Your task to perform on an android device: check data usage Image 0: 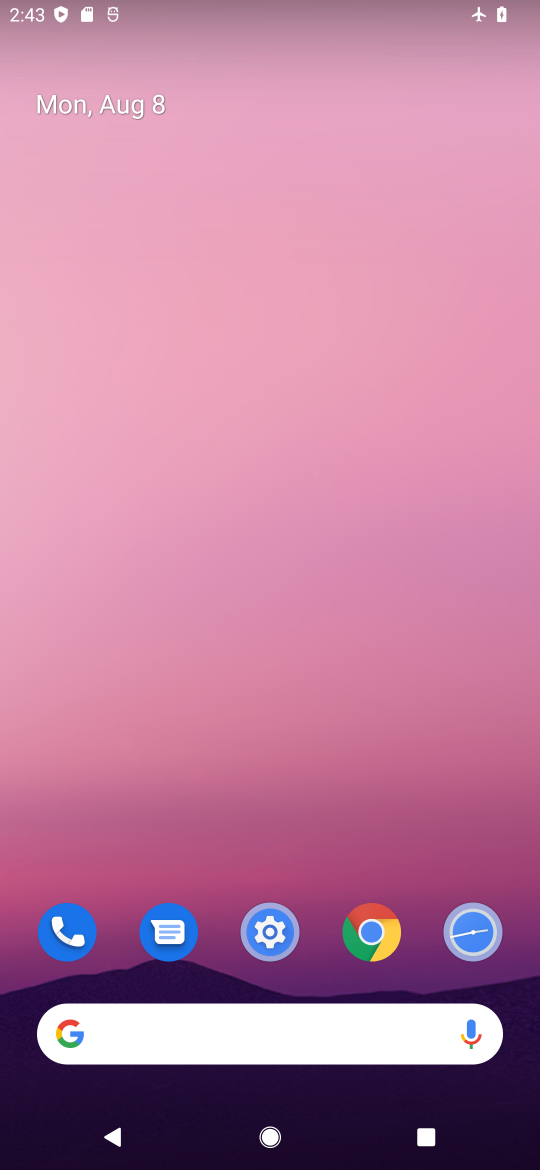
Step 0: drag from (418, 793) to (353, 82)
Your task to perform on an android device: check data usage Image 1: 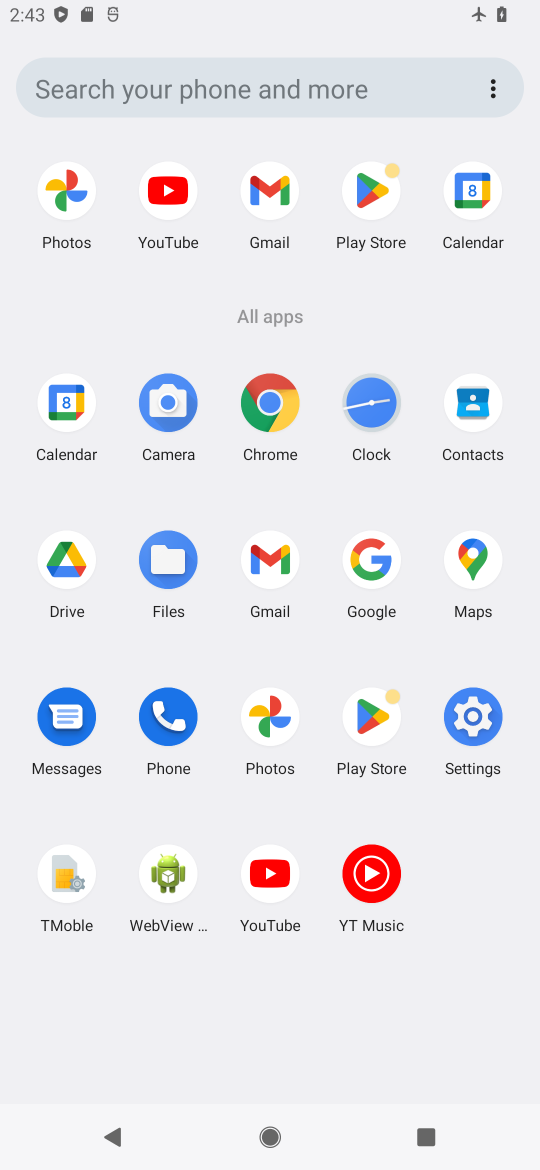
Step 1: click (485, 718)
Your task to perform on an android device: check data usage Image 2: 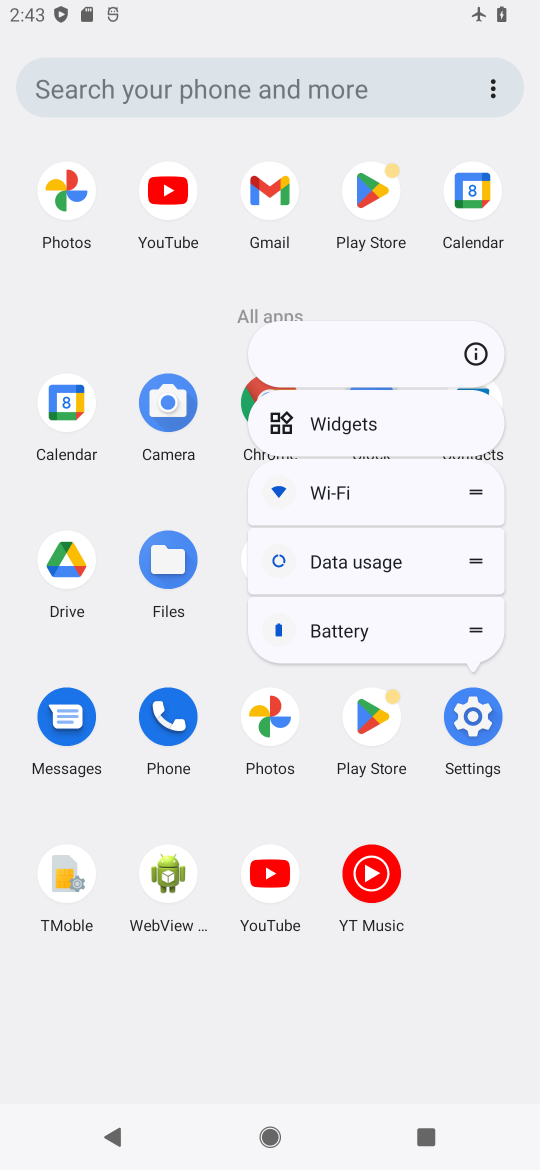
Step 2: click (485, 718)
Your task to perform on an android device: check data usage Image 3: 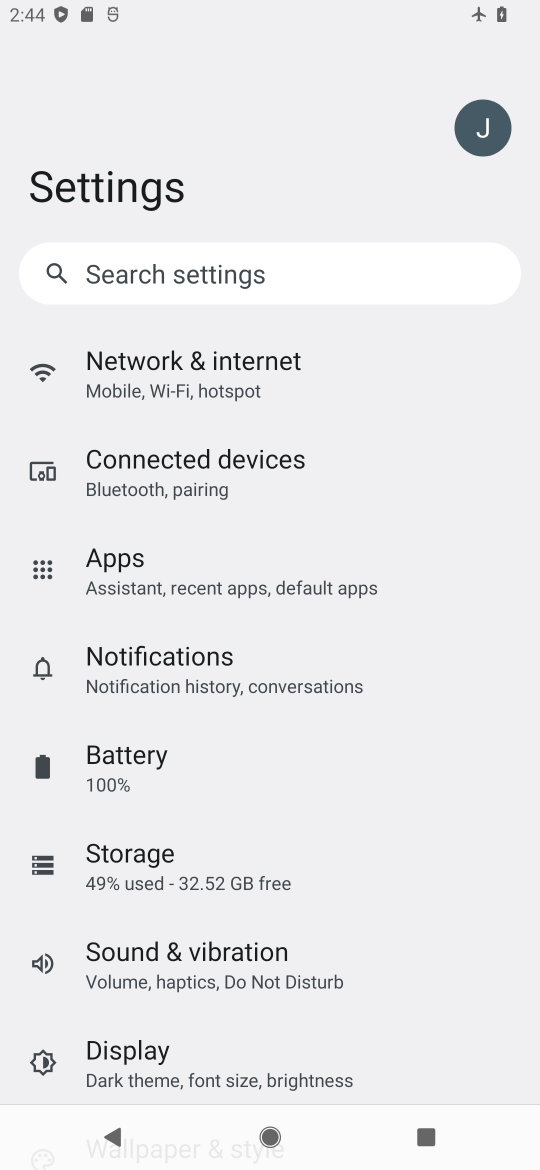
Step 3: click (207, 392)
Your task to perform on an android device: check data usage Image 4: 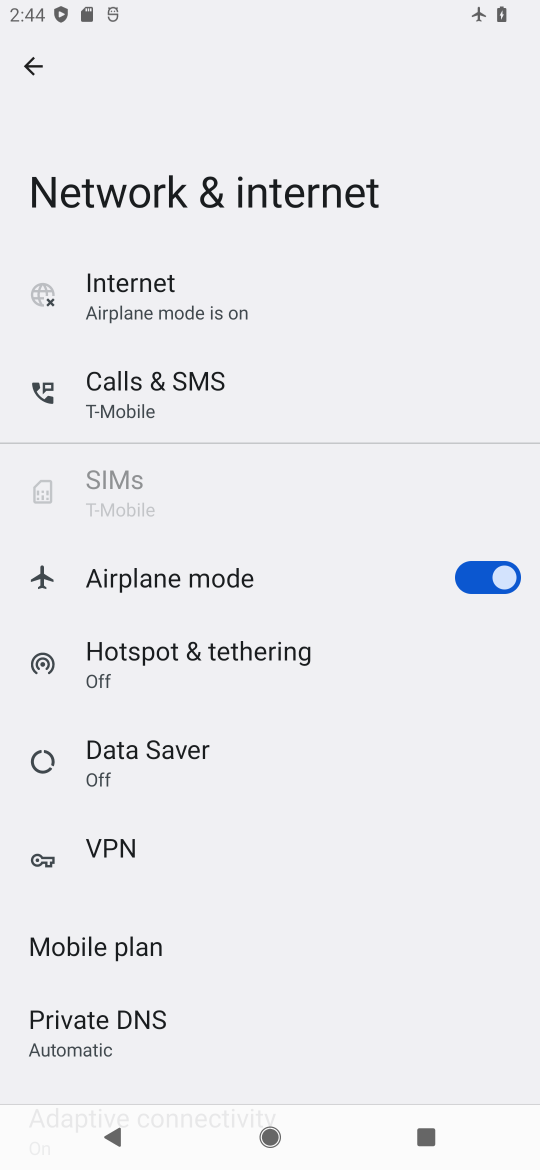
Step 4: click (198, 288)
Your task to perform on an android device: check data usage Image 5: 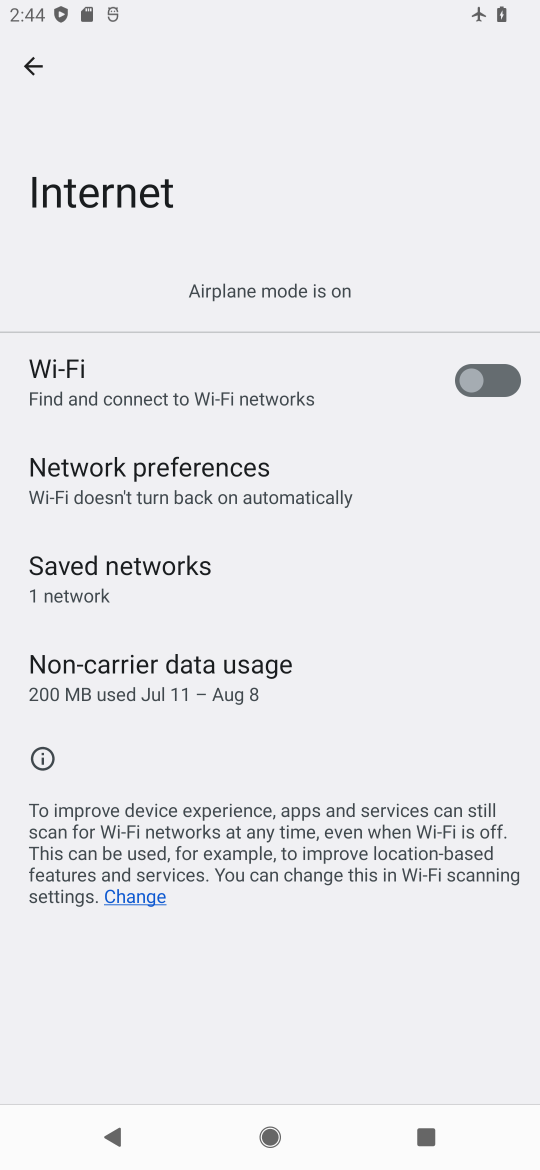
Step 5: click (236, 673)
Your task to perform on an android device: check data usage Image 6: 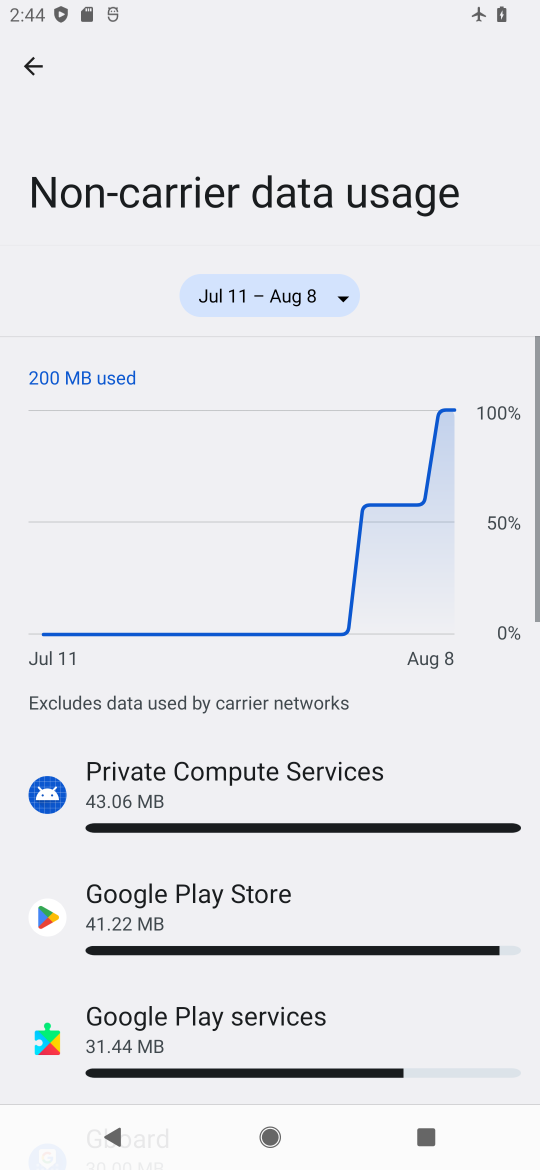
Step 6: task complete